Your task to perform on an android device: Show me popular videos on Youtube Image 0: 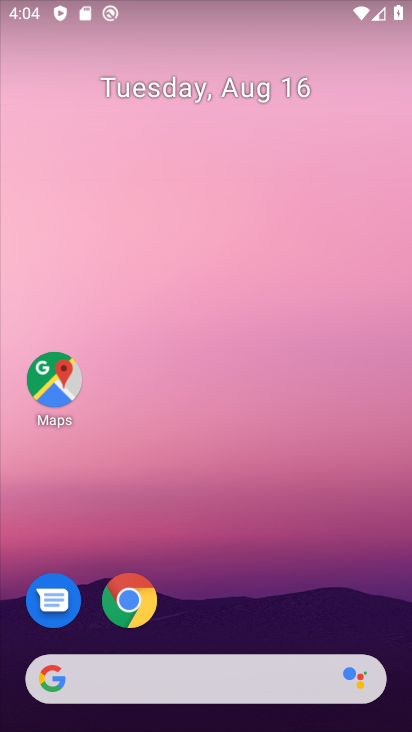
Step 0: drag from (198, 618) to (224, 184)
Your task to perform on an android device: Show me popular videos on Youtube Image 1: 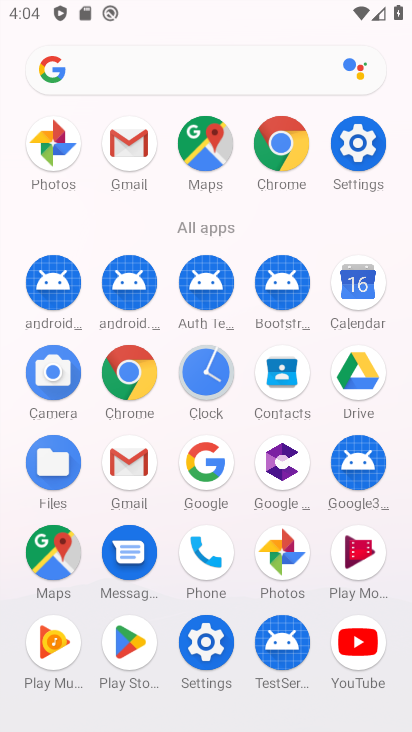
Step 1: click (366, 673)
Your task to perform on an android device: Show me popular videos on Youtube Image 2: 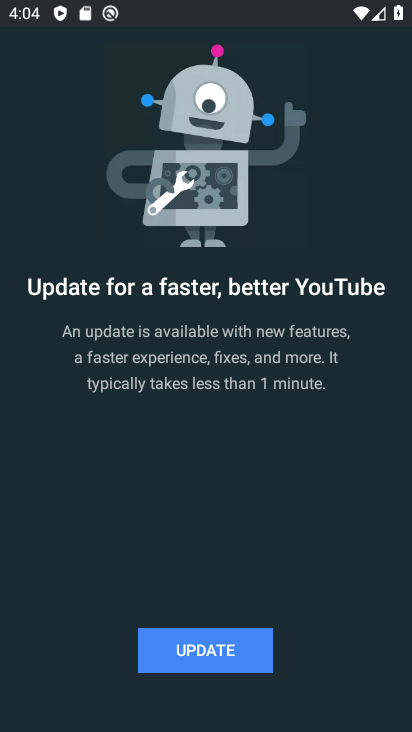
Step 2: click (214, 654)
Your task to perform on an android device: Show me popular videos on Youtube Image 3: 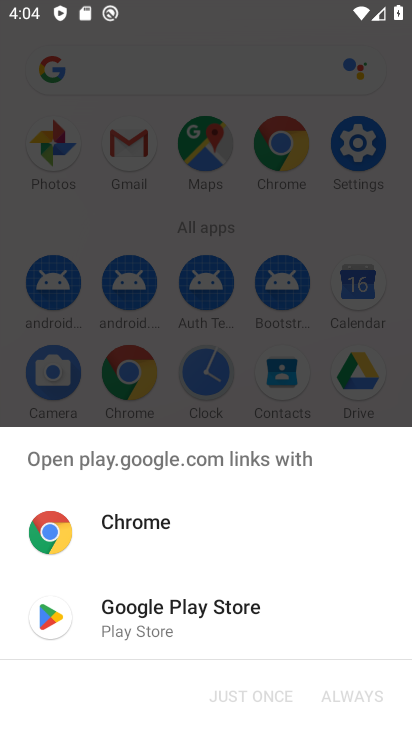
Step 3: click (164, 610)
Your task to perform on an android device: Show me popular videos on Youtube Image 4: 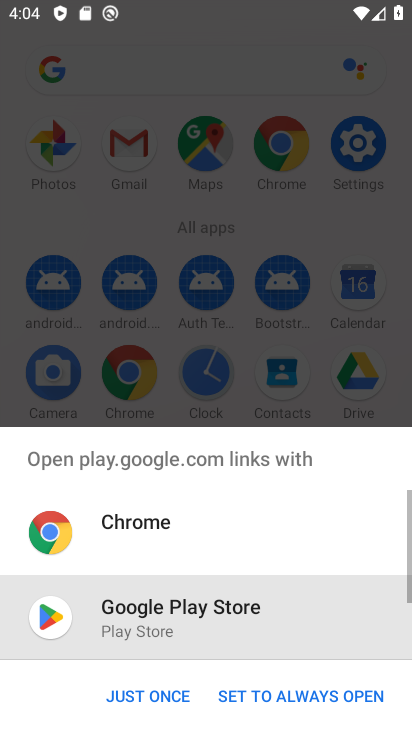
Step 4: click (145, 691)
Your task to perform on an android device: Show me popular videos on Youtube Image 5: 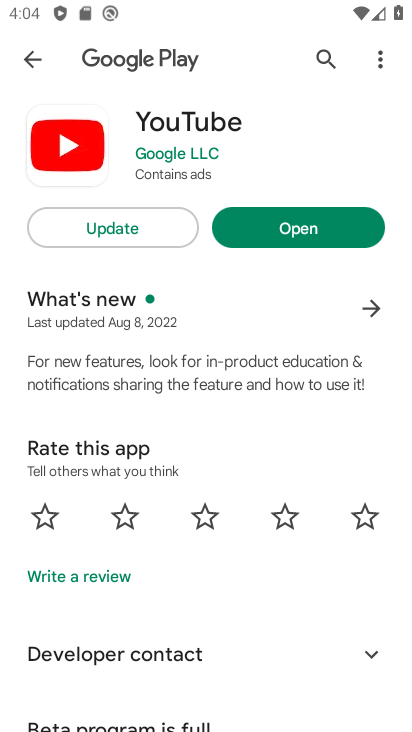
Step 5: click (89, 230)
Your task to perform on an android device: Show me popular videos on Youtube Image 6: 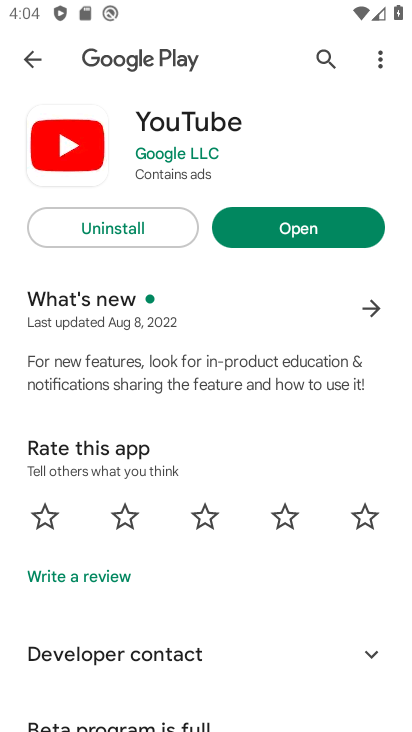
Step 6: click (284, 222)
Your task to perform on an android device: Show me popular videos on Youtube Image 7: 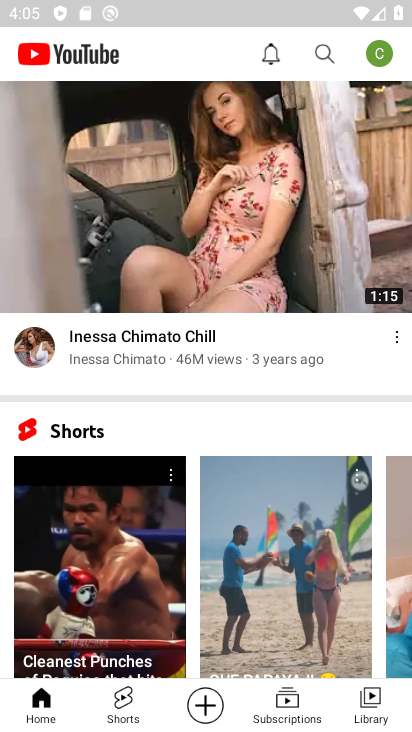
Step 7: drag from (80, 141) to (42, 498)
Your task to perform on an android device: Show me popular videos on Youtube Image 8: 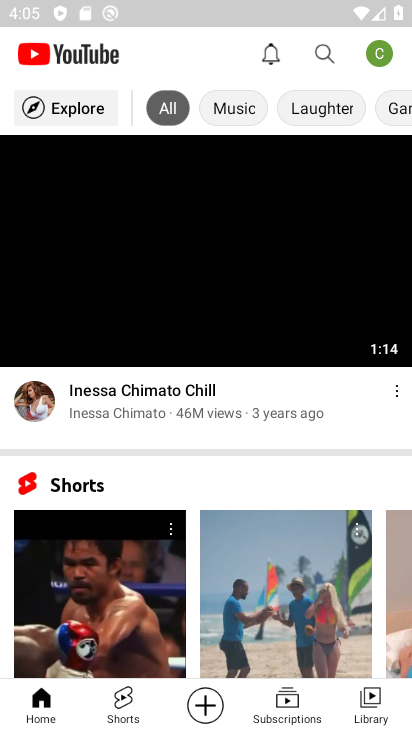
Step 8: click (53, 104)
Your task to perform on an android device: Show me popular videos on Youtube Image 9: 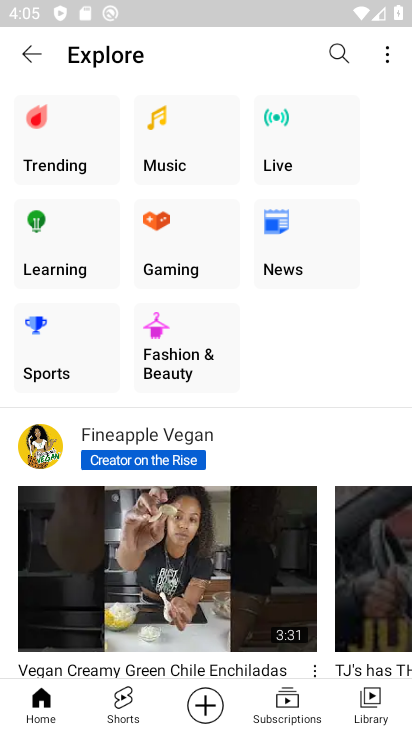
Step 9: click (75, 159)
Your task to perform on an android device: Show me popular videos on Youtube Image 10: 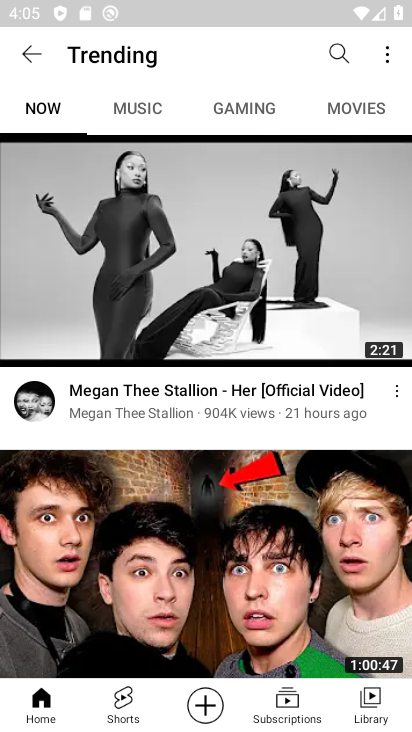
Step 10: task complete